Your task to perform on an android device: uninstall "Fetch Rewards" Image 0: 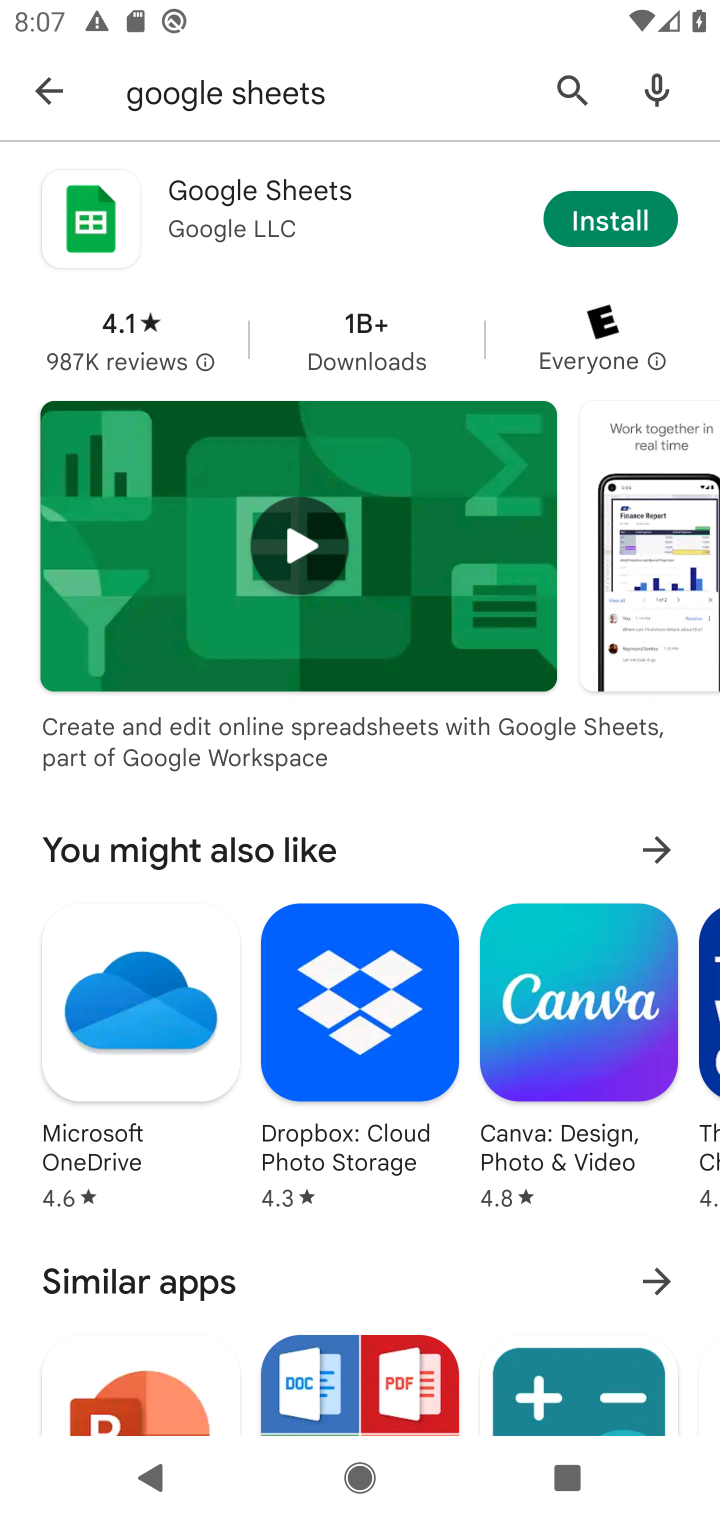
Step 0: press back button
Your task to perform on an android device: uninstall "Fetch Rewards" Image 1: 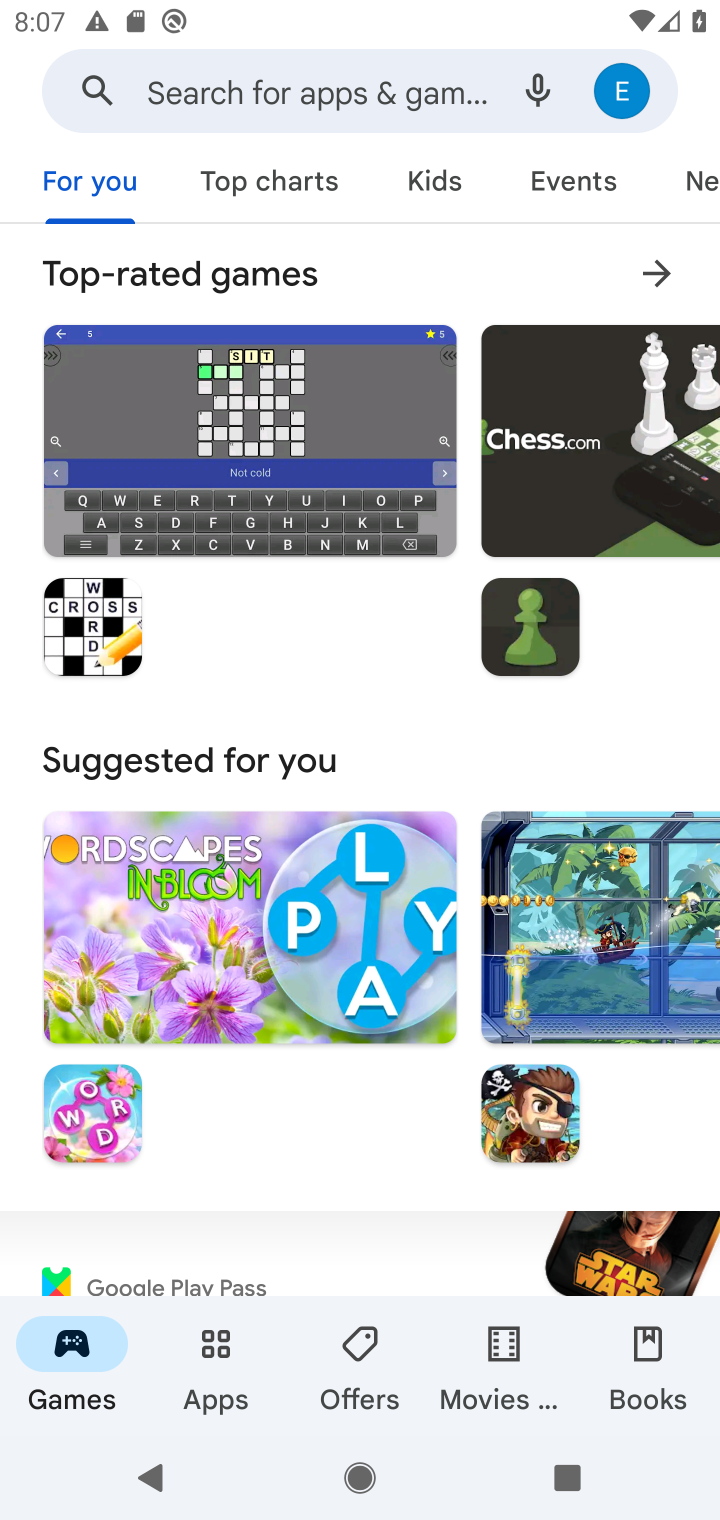
Step 1: click (373, 72)
Your task to perform on an android device: uninstall "Fetch Rewards" Image 2: 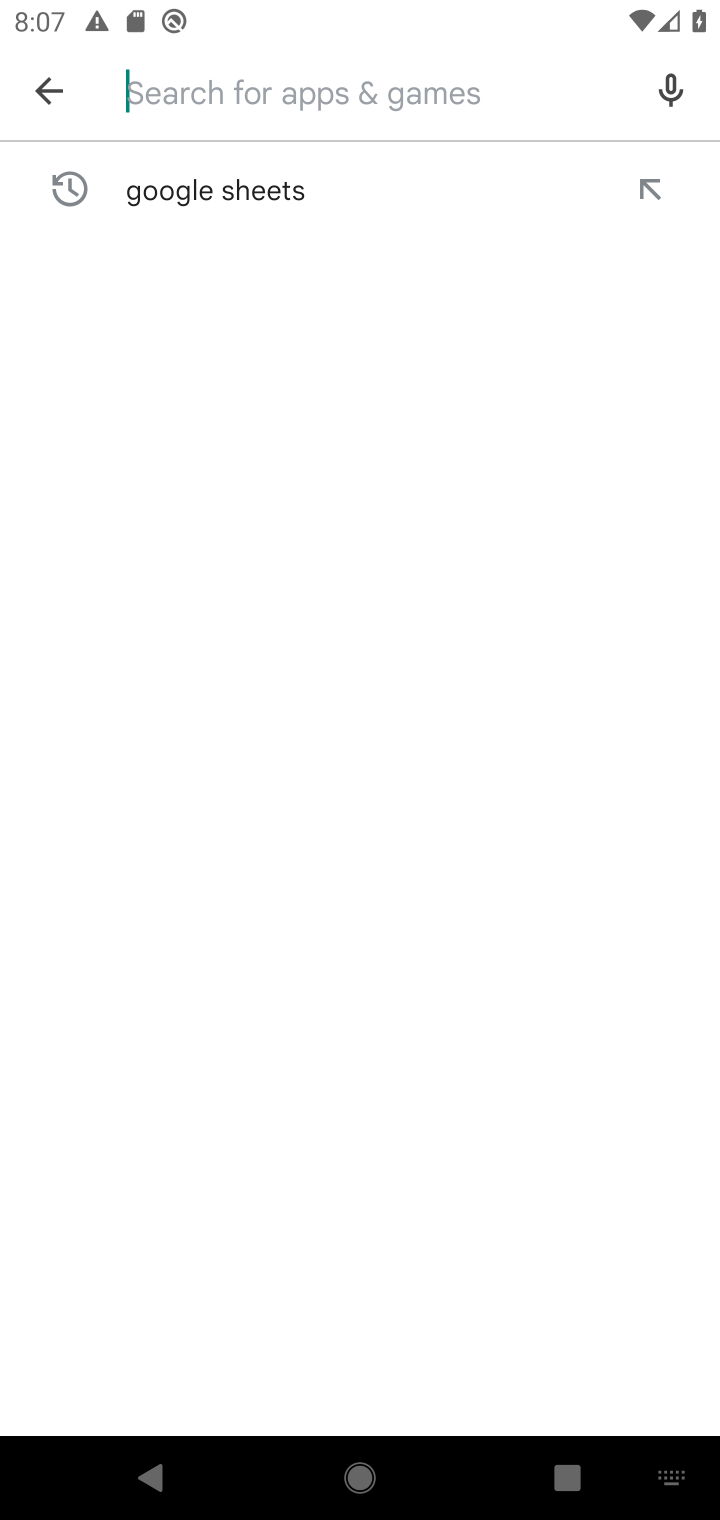
Step 2: type "Fetch rewards"
Your task to perform on an android device: uninstall "Fetch Rewards" Image 3: 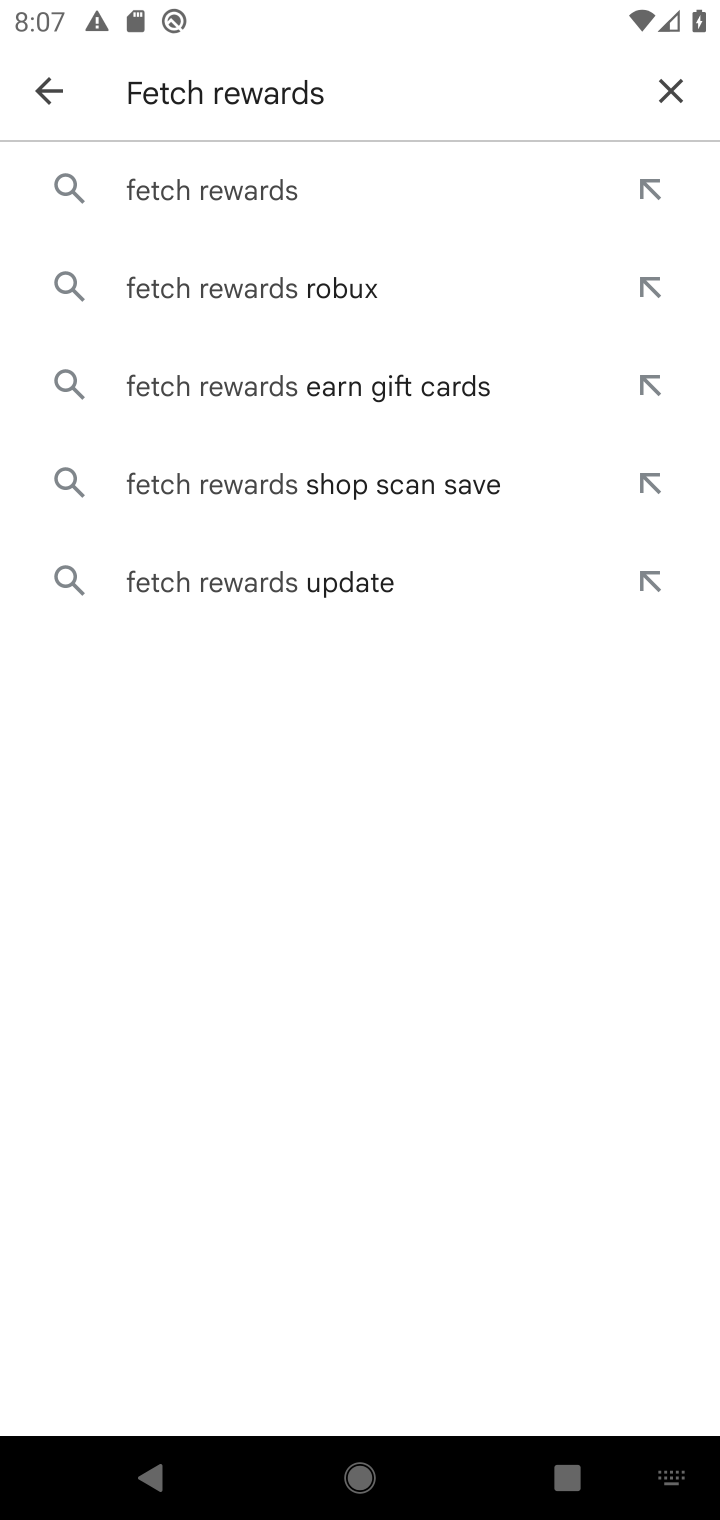
Step 3: click (321, 178)
Your task to perform on an android device: uninstall "Fetch Rewards" Image 4: 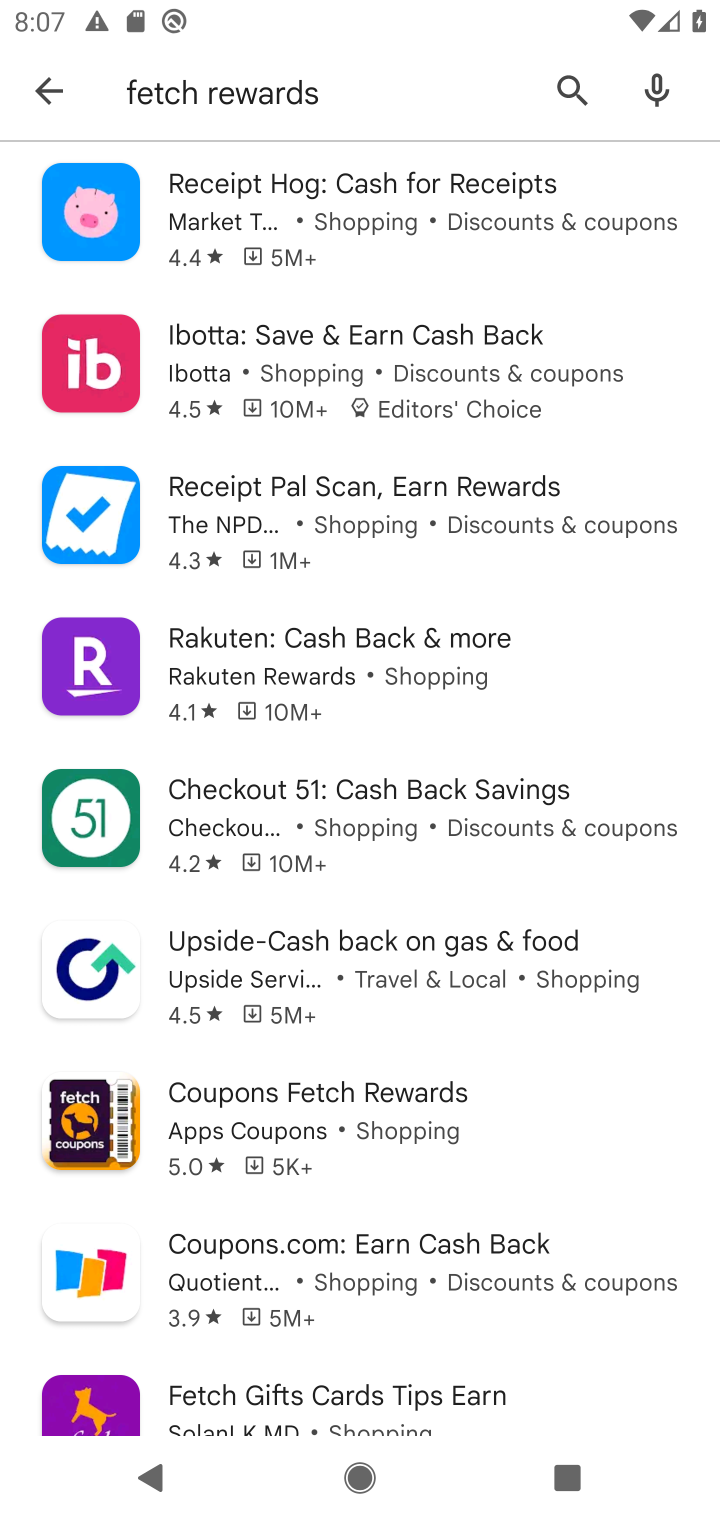
Step 4: drag from (341, 1091) to (362, 446)
Your task to perform on an android device: uninstall "Fetch Rewards" Image 5: 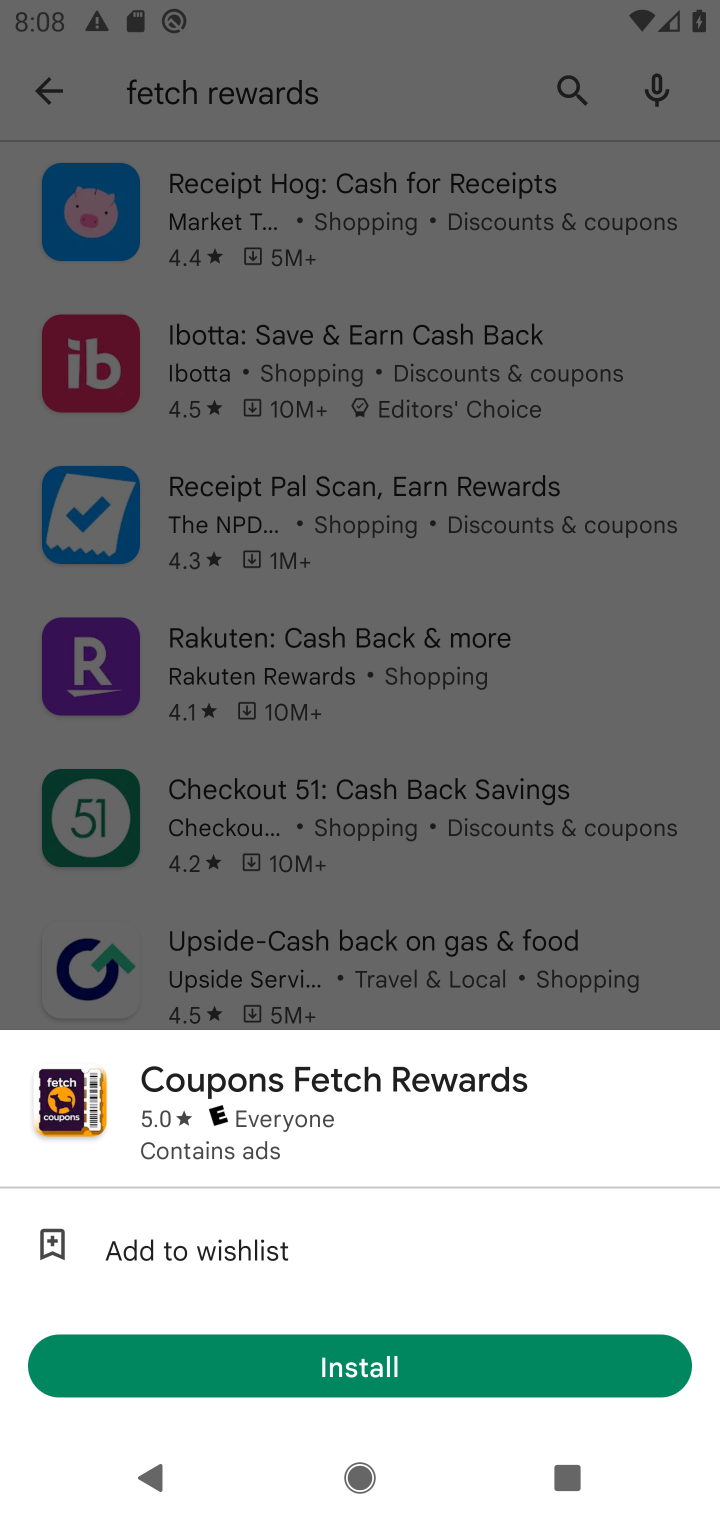
Step 5: click (628, 818)
Your task to perform on an android device: uninstall "Fetch Rewards" Image 6: 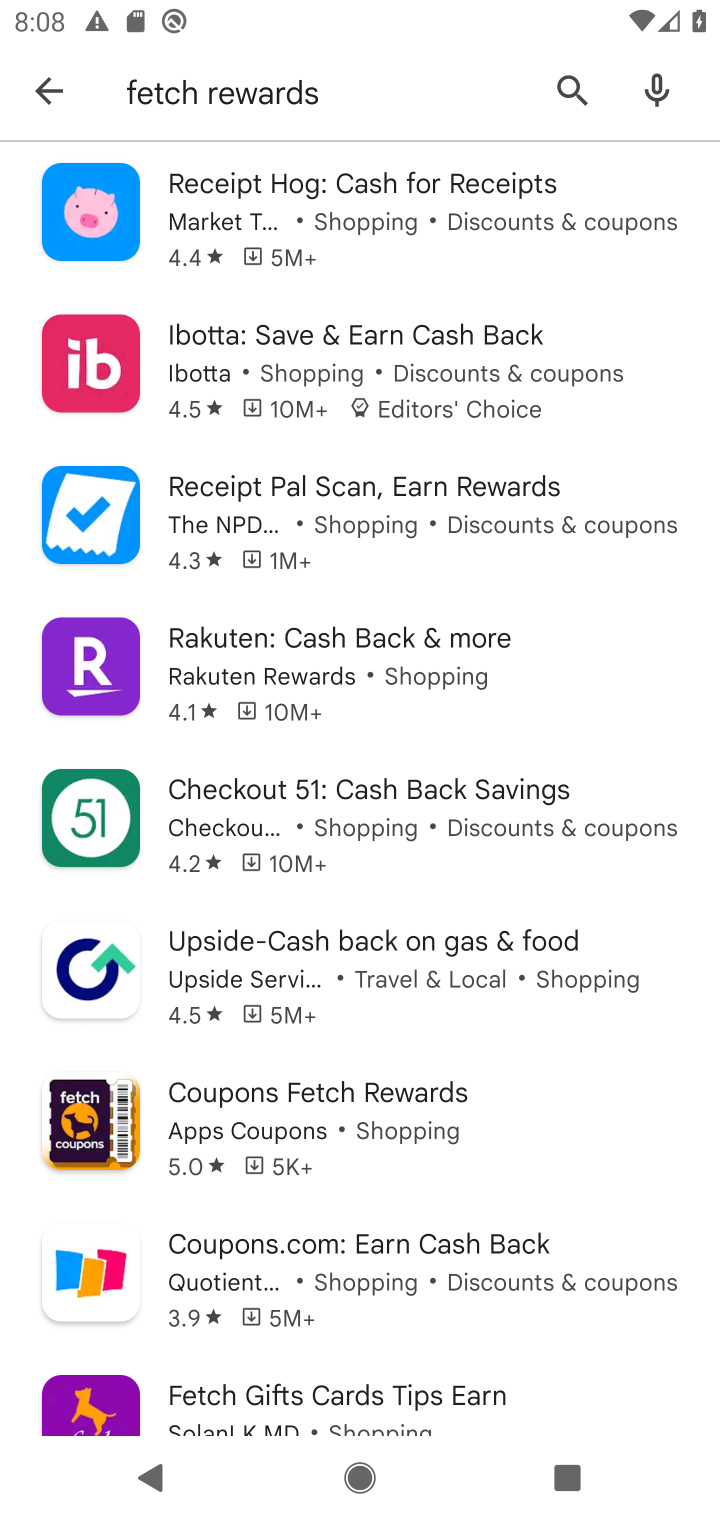
Step 6: press back button
Your task to perform on an android device: uninstall "Fetch Rewards" Image 7: 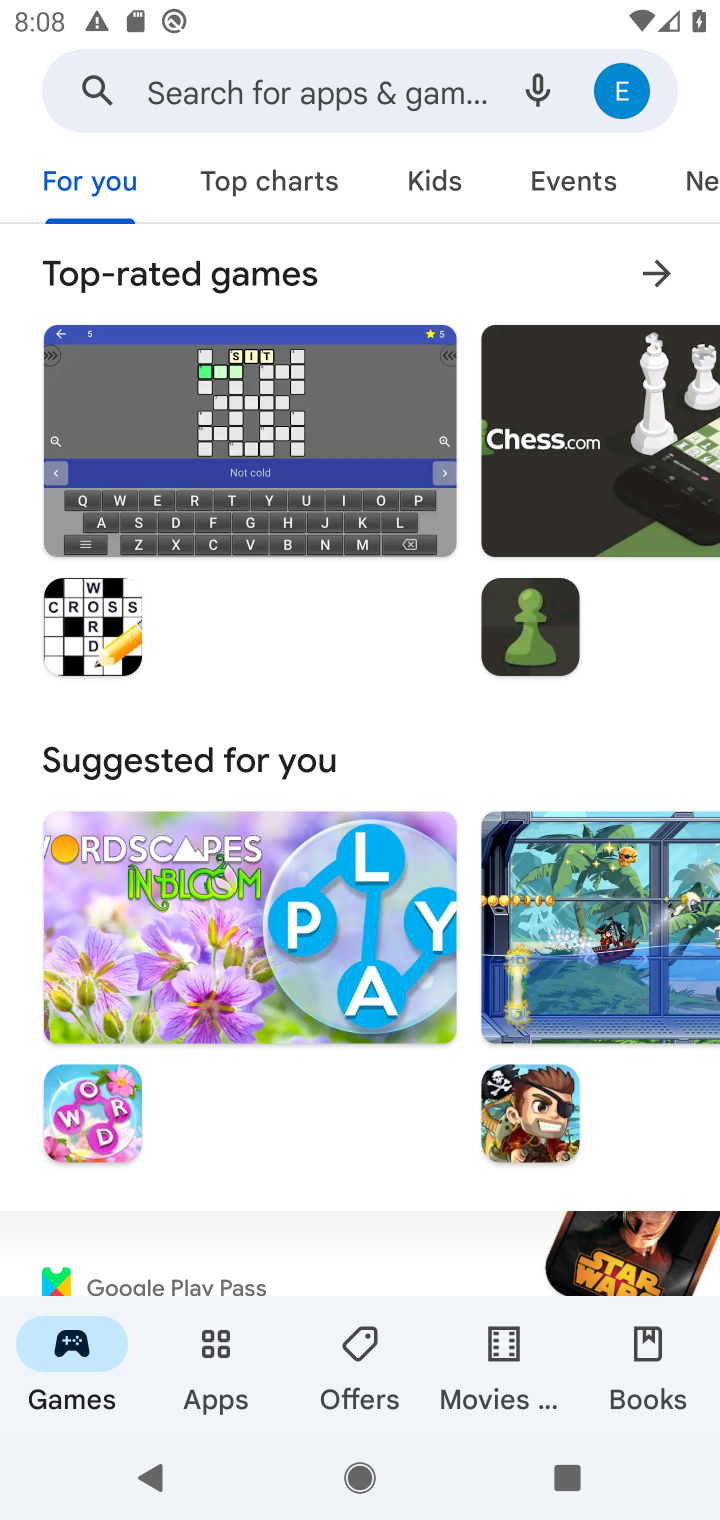
Step 7: click (284, 94)
Your task to perform on an android device: uninstall "Fetch Rewards" Image 8: 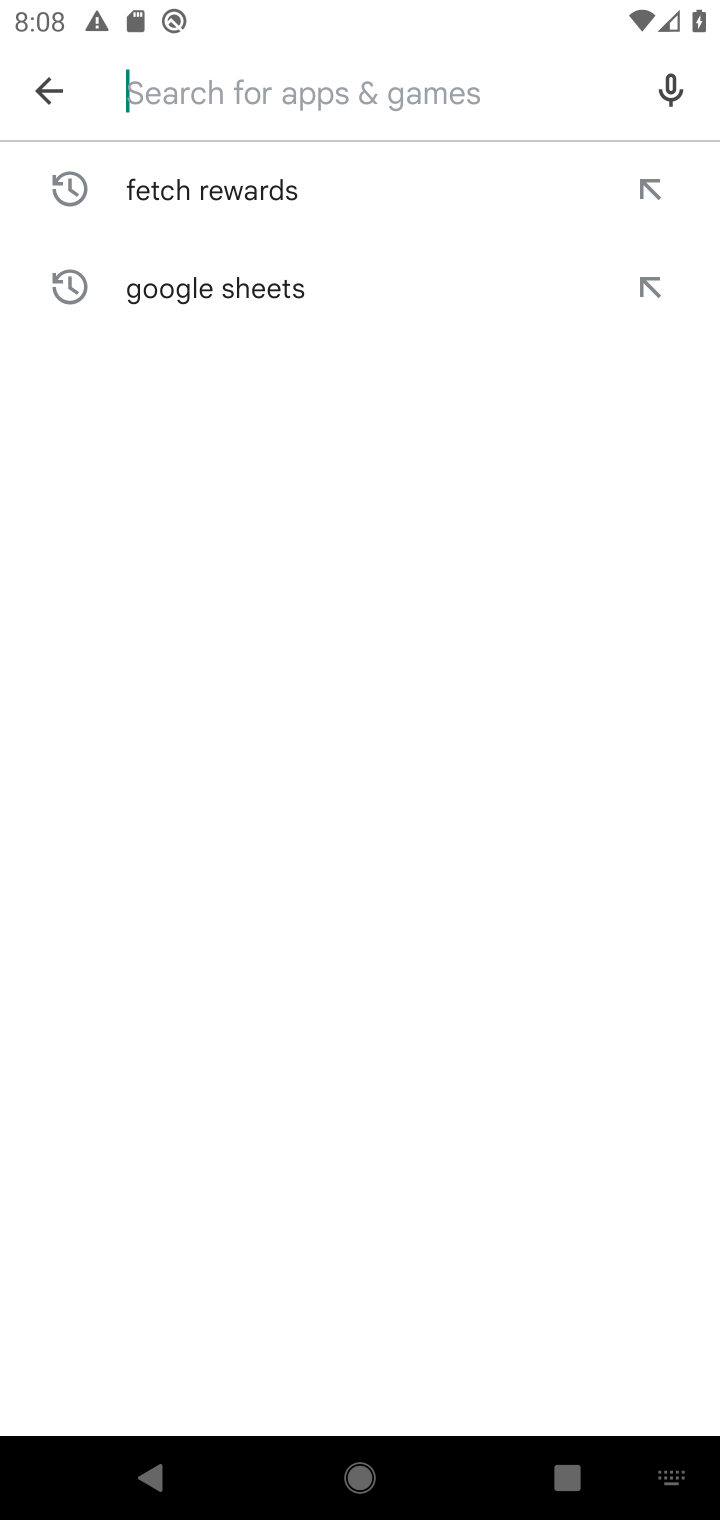
Step 8: click (169, 203)
Your task to perform on an android device: uninstall "Fetch Rewards" Image 9: 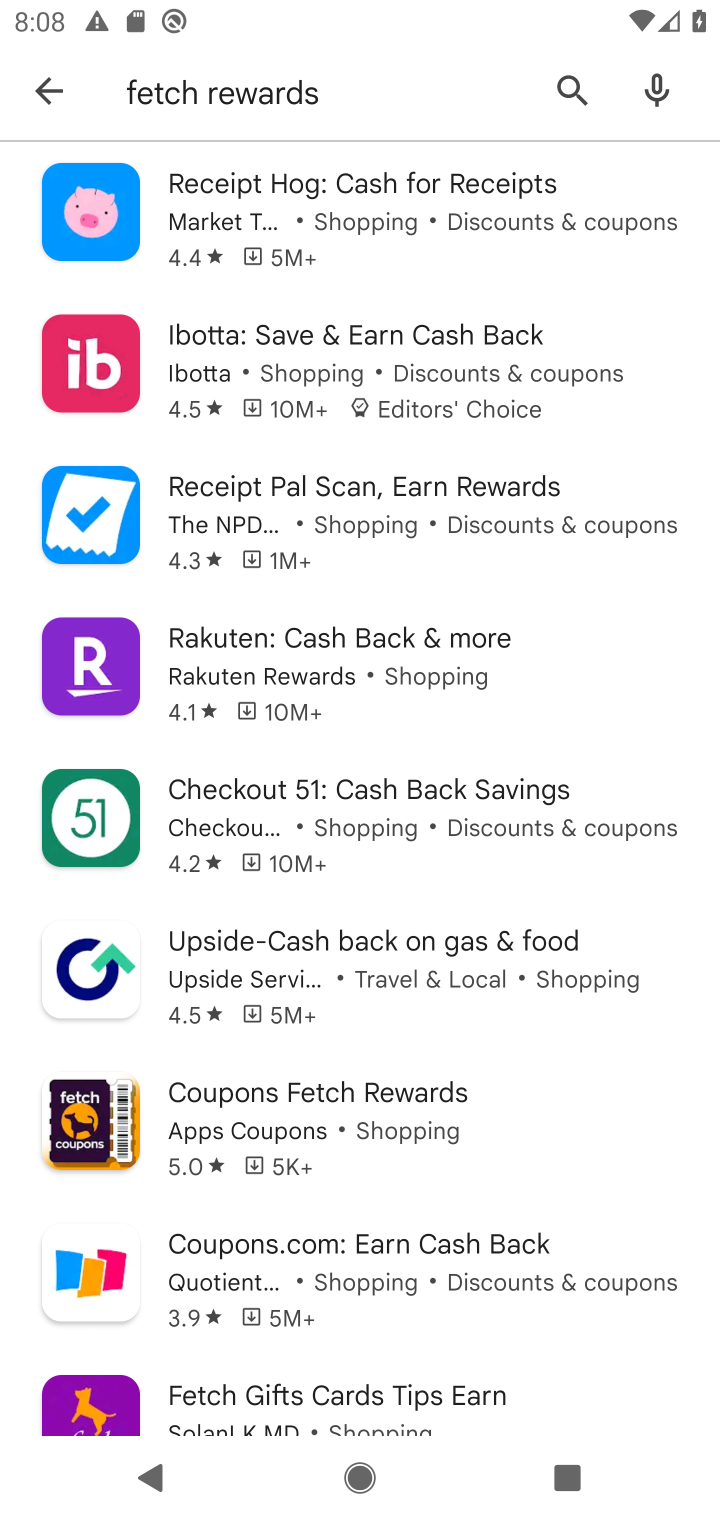
Step 9: task complete